Your task to perform on an android device: toggle wifi Image 0: 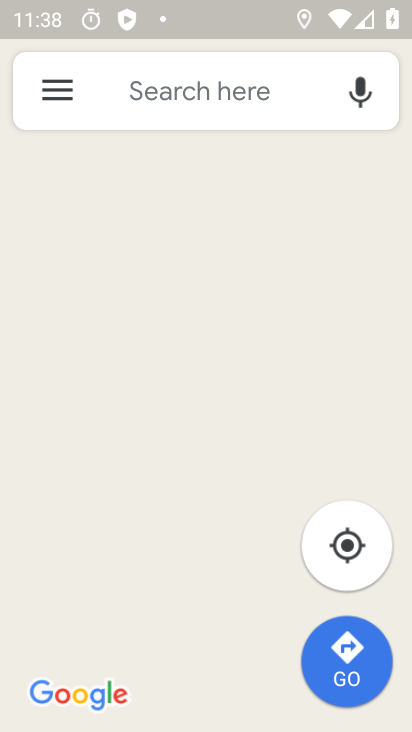
Step 0: press home button
Your task to perform on an android device: toggle wifi Image 1: 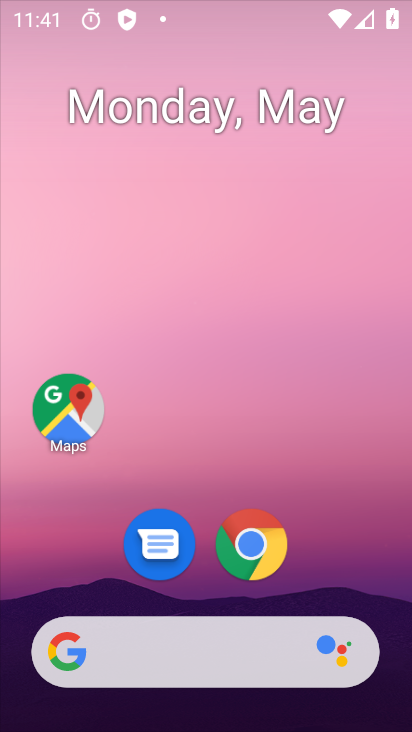
Step 1: drag from (335, 561) to (314, 193)
Your task to perform on an android device: toggle wifi Image 2: 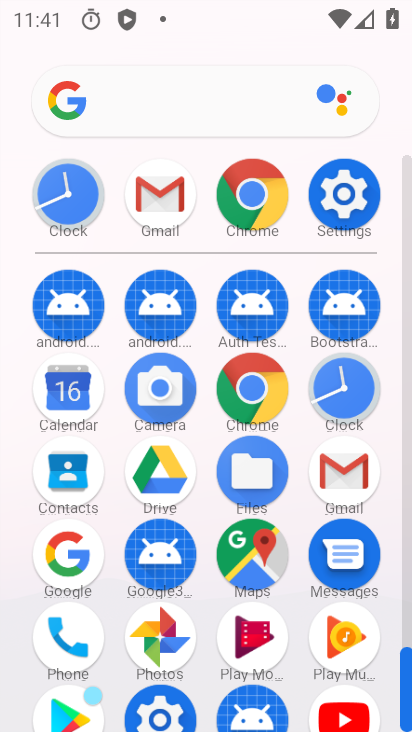
Step 2: click (347, 188)
Your task to perform on an android device: toggle wifi Image 3: 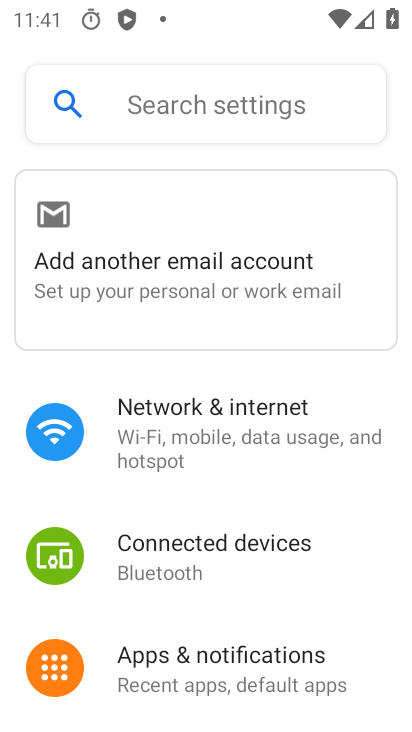
Step 3: click (299, 420)
Your task to perform on an android device: toggle wifi Image 4: 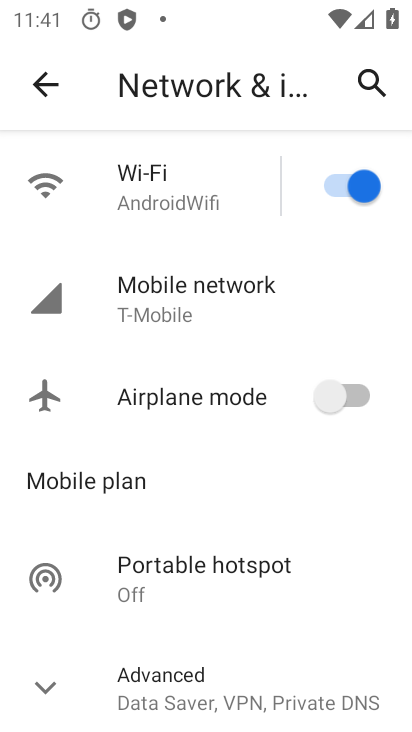
Step 4: click (237, 172)
Your task to perform on an android device: toggle wifi Image 5: 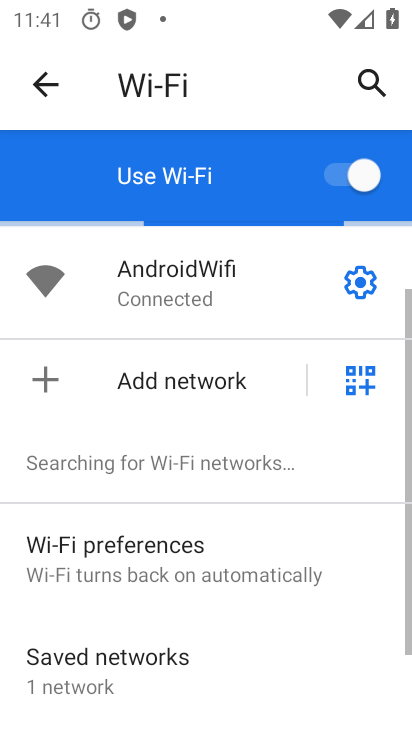
Step 5: click (326, 173)
Your task to perform on an android device: toggle wifi Image 6: 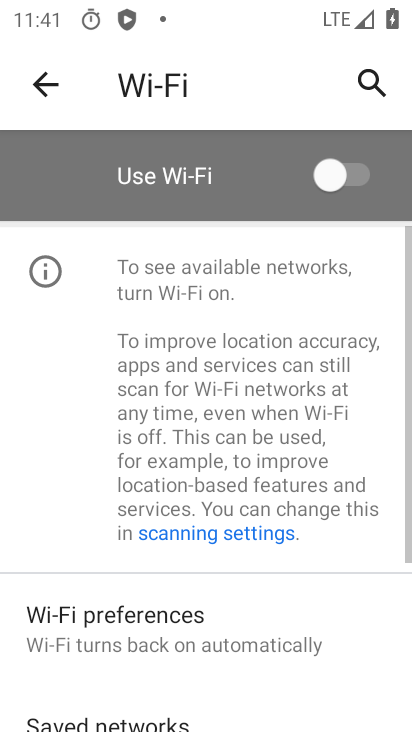
Step 6: task complete